Your task to perform on an android device: turn on airplane mode Image 0: 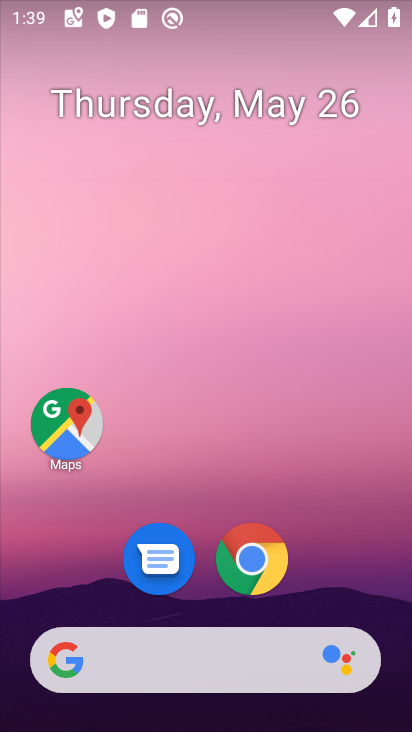
Step 0: press home button
Your task to perform on an android device: turn on airplane mode Image 1: 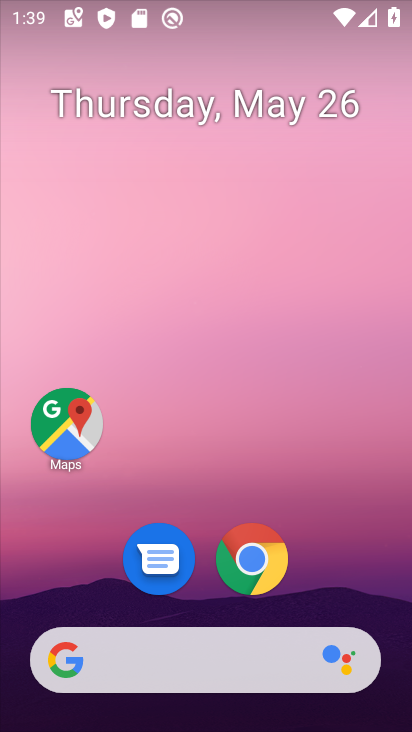
Step 1: drag from (147, 680) to (331, 103)
Your task to perform on an android device: turn on airplane mode Image 2: 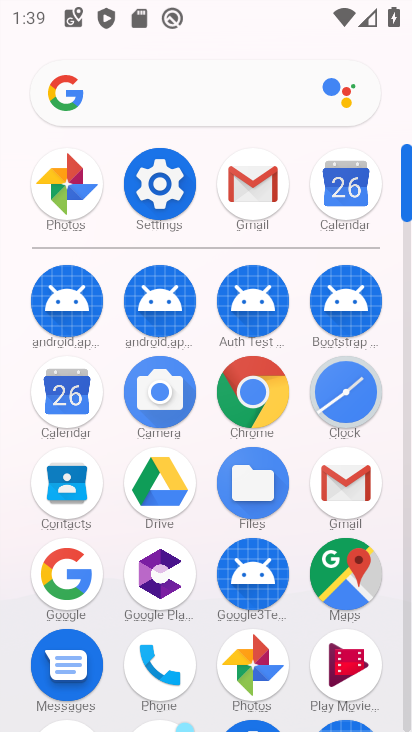
Step 2: click (173, 184)
Your task to perform on an android device: turn on airplane mode Image 3: 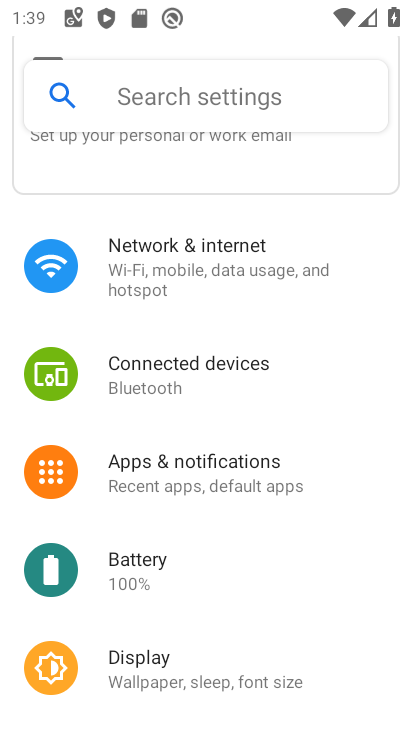
Step 3: click (225, 257)
Your task to perform on an android device: turn on airplane mode Image 4: 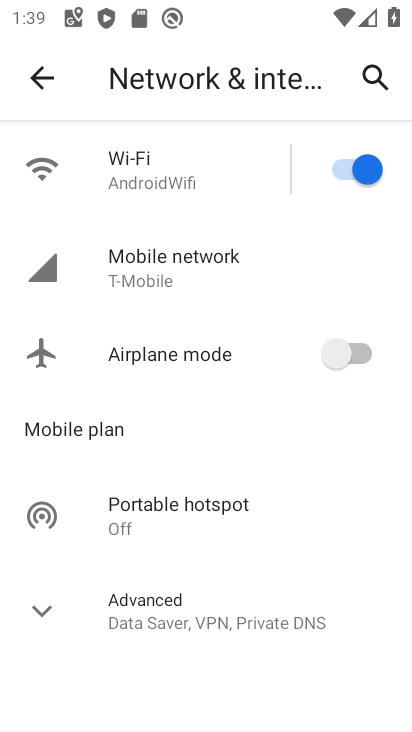
Step 4: click (356, 350)
Your task to perform on an android device: turn on airplane mode Image 5: 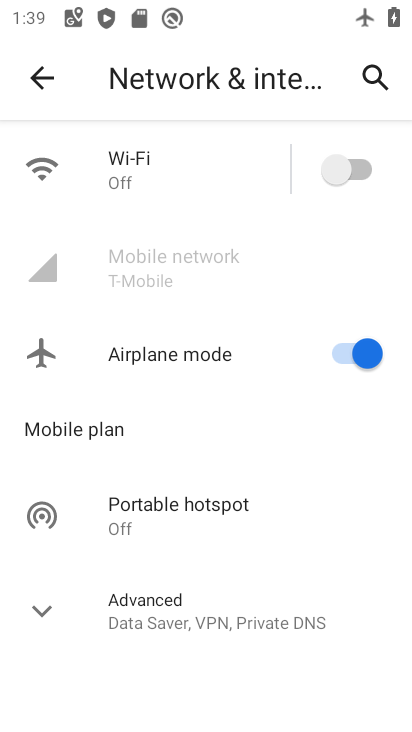
Step 5: task complete